Your task to perform on an android device: Go to Yahoo.com Image 0: 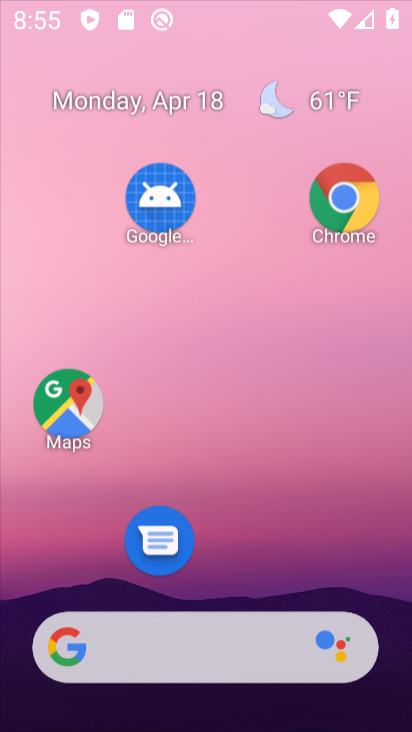
Step 0: click (238, 556)
Your task to perform on an android device: Go to Yahoo.com Image 1: 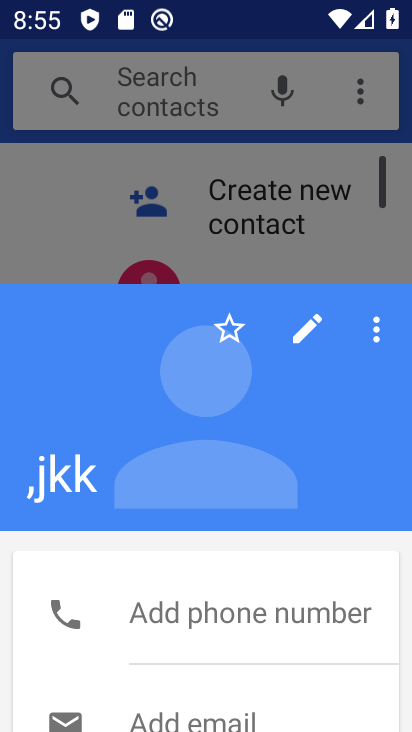
Step 1: press home button
Your task to perform on an android device: Go to Yahoo.com Image 2: 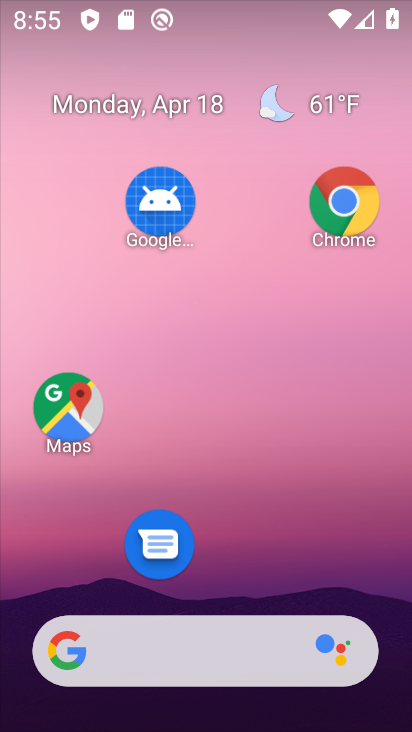
Step 2: click (334, 198)
Your task to perform on an android device: Go to Yahoo.com Image 3: 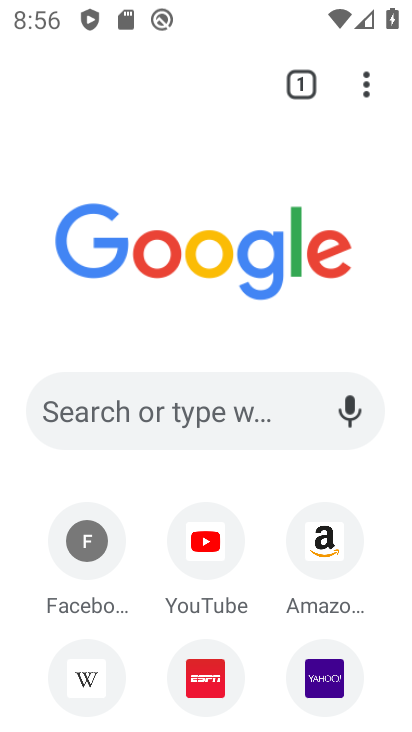
Step 3: click (334, 666)
Your task to perform on an android device: Go to Yahoo.com Image 4: 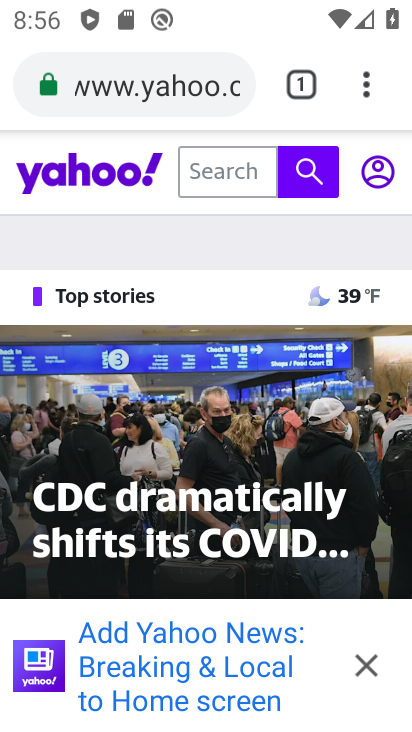
Step 4: task complete